Your task to perform on an android device: Open Yahoo.com Image 0: 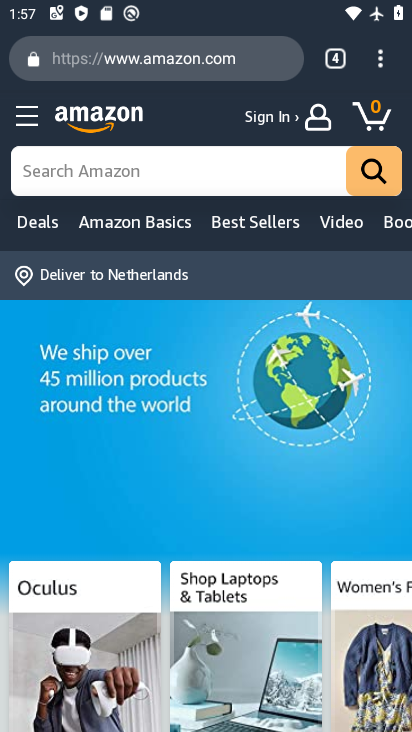
Step 0: press home button
Your task to perform on an android device: Open Yahoo.com Image 1: 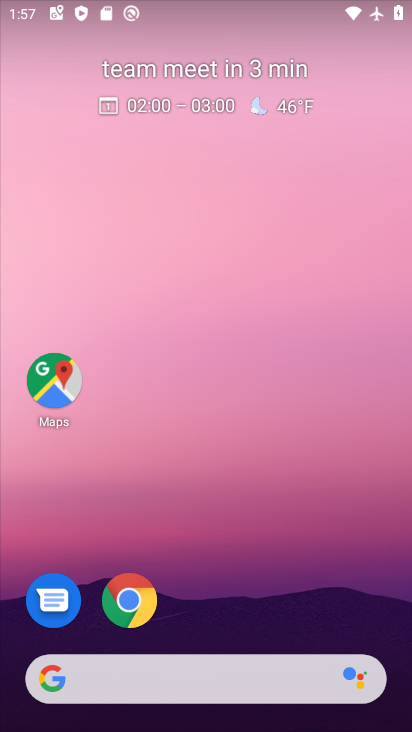
Step 1: click (148, 603)
Your task to perform on an android device: Open Yahoo.com Image 2: 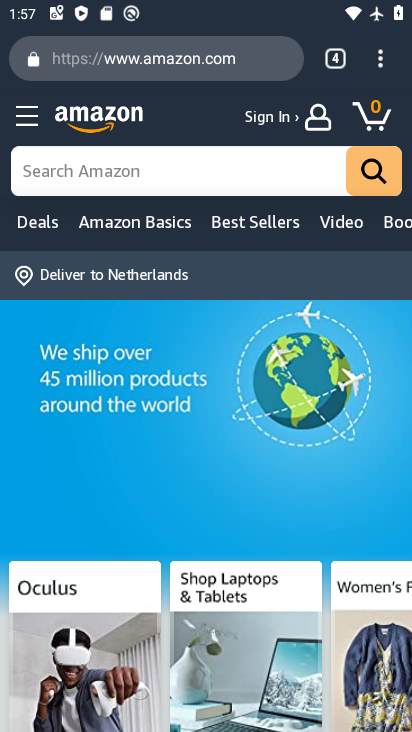
Step 2: click (325, 52)
Your task to perform on an android device: Open Yahoo.com Image 3: 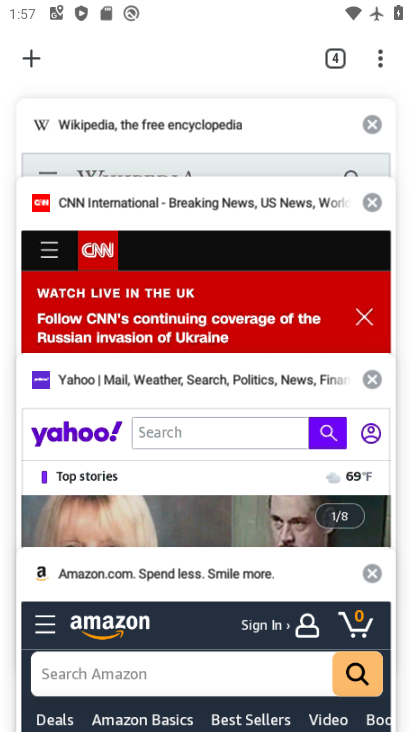
Step 3: click (29, 52)
Your task to perform on an android device: Open Yahoo.com Image 4: 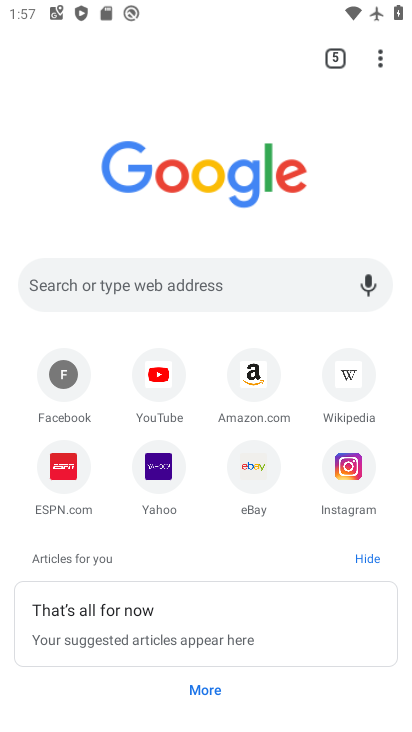
Step 4: click (146, 466)
Your task to perform on an android device: Open Yahoo.com Image 5: 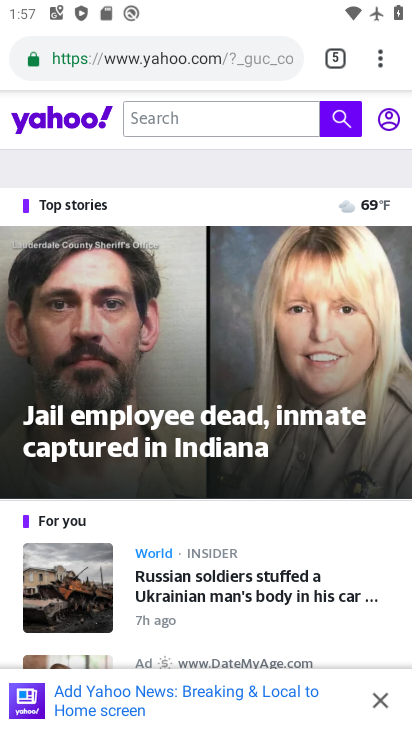
Step 5: task complete